Your task to perform on an android device: open a bookmark in the chrome app Image 0: 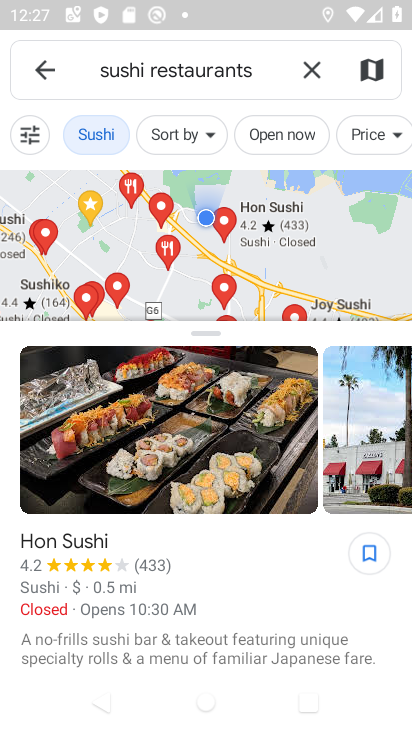
Step 0: press home button
Your task to perform on an android device: open a bookmark in the chrome app Image 1: 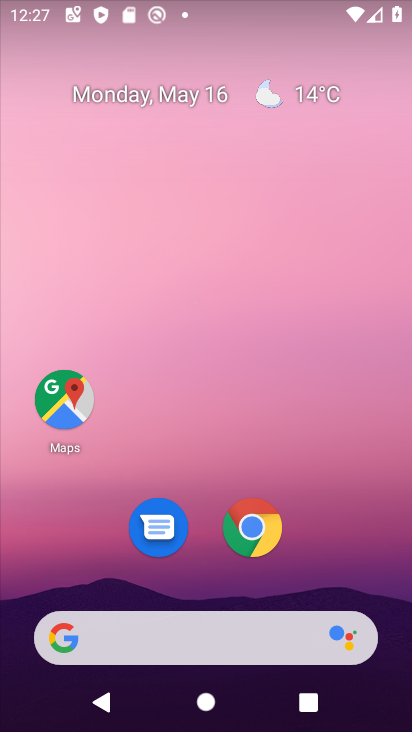
Step 1: click (239, 545)
Your task to perform on an android device: open a bookmark in the chrome app Image 2: 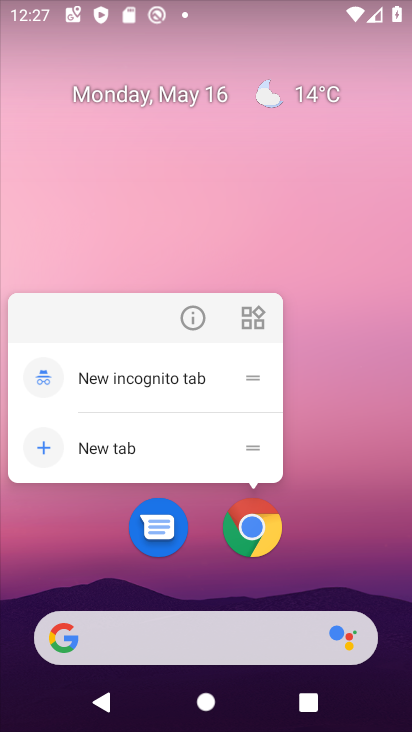
Step 2: click (245, 523)
Your task to perform on an android device: open a bookmark in the chrome app Image 3: 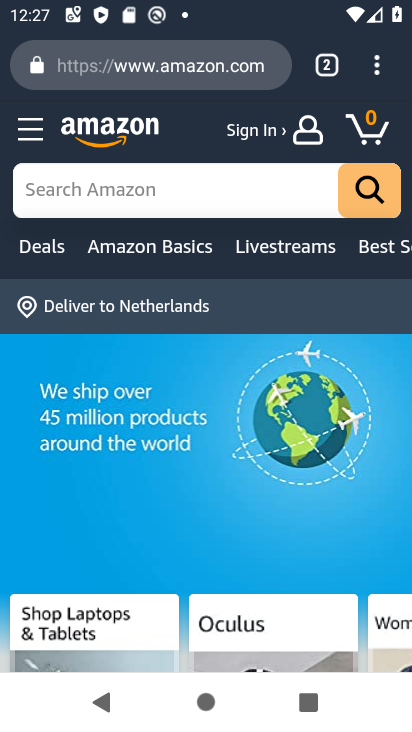
Step 3: click (377, 72)
Your task to perform on an android device: open a bookmark in the chrome app Image 4: 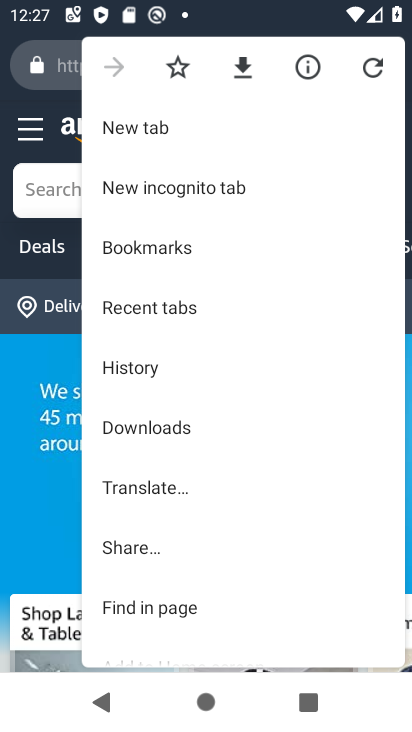
Step 4: drag from (146, 541) to (197, 283)
Your task to perform on an android device: open a bookmark in the chrome app Image 5: 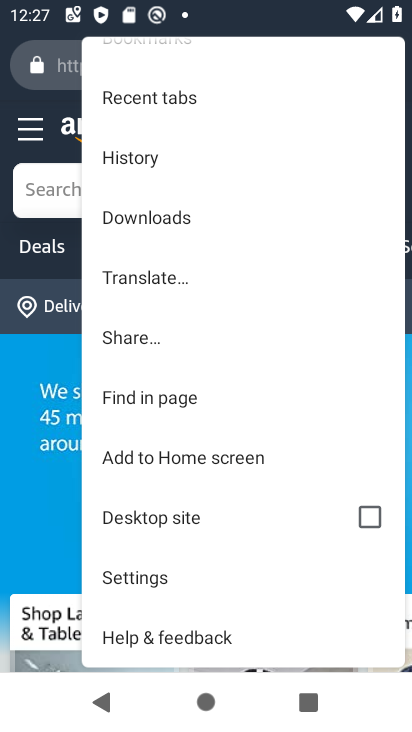
Step 5: click (165, 579)
Your task to perform on an android device: open a bookmark in the chrome app Image 6: 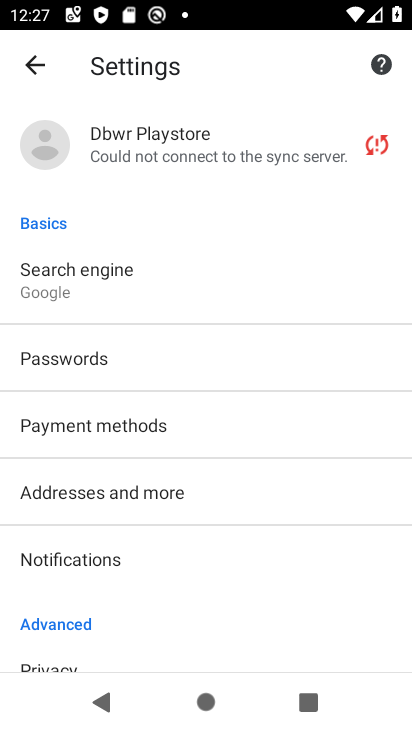
Step 6: click (33, 75)
Your task to perform on an android device: open a bookmark in the chrome app Image 7: 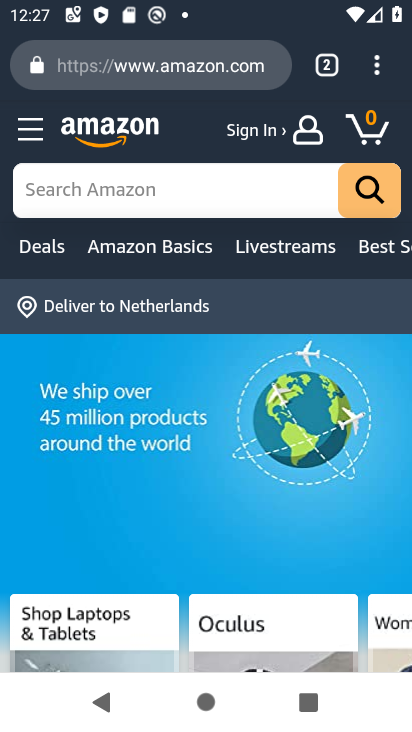
Step 7: click (381, 72)
Your task to perform on an android device: open a bookmark in the chrome app Image 8: 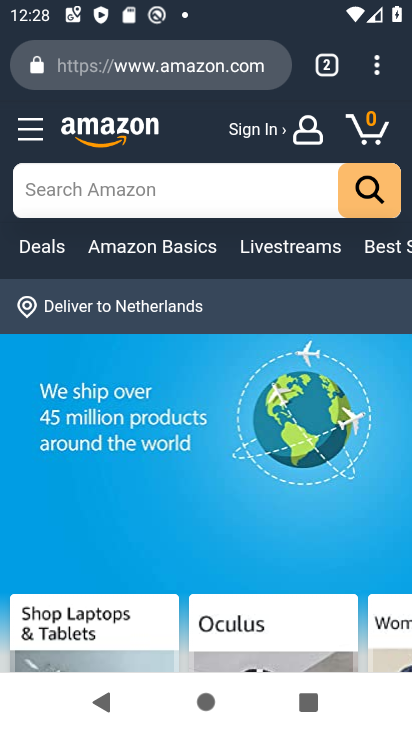
Step 8: click (379, 66)
Your task to perform on an android device: open a bookmark in the chrome app Image 9: 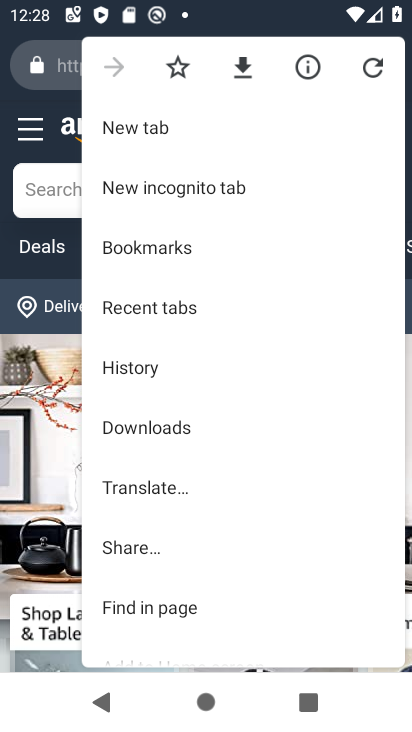
Step 9: click (155, 251)
Your task to perform on an android device: open a bookmark in the chrome app Image 10: 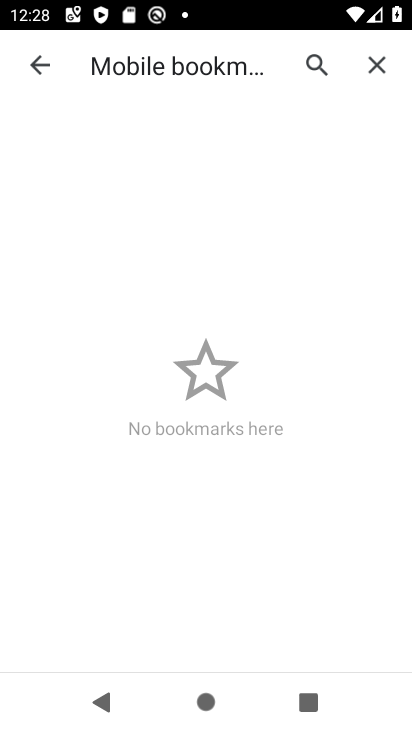
Step 10: task complete